Your task to perform on an android device: Open Maps and search for coffee Image 0: 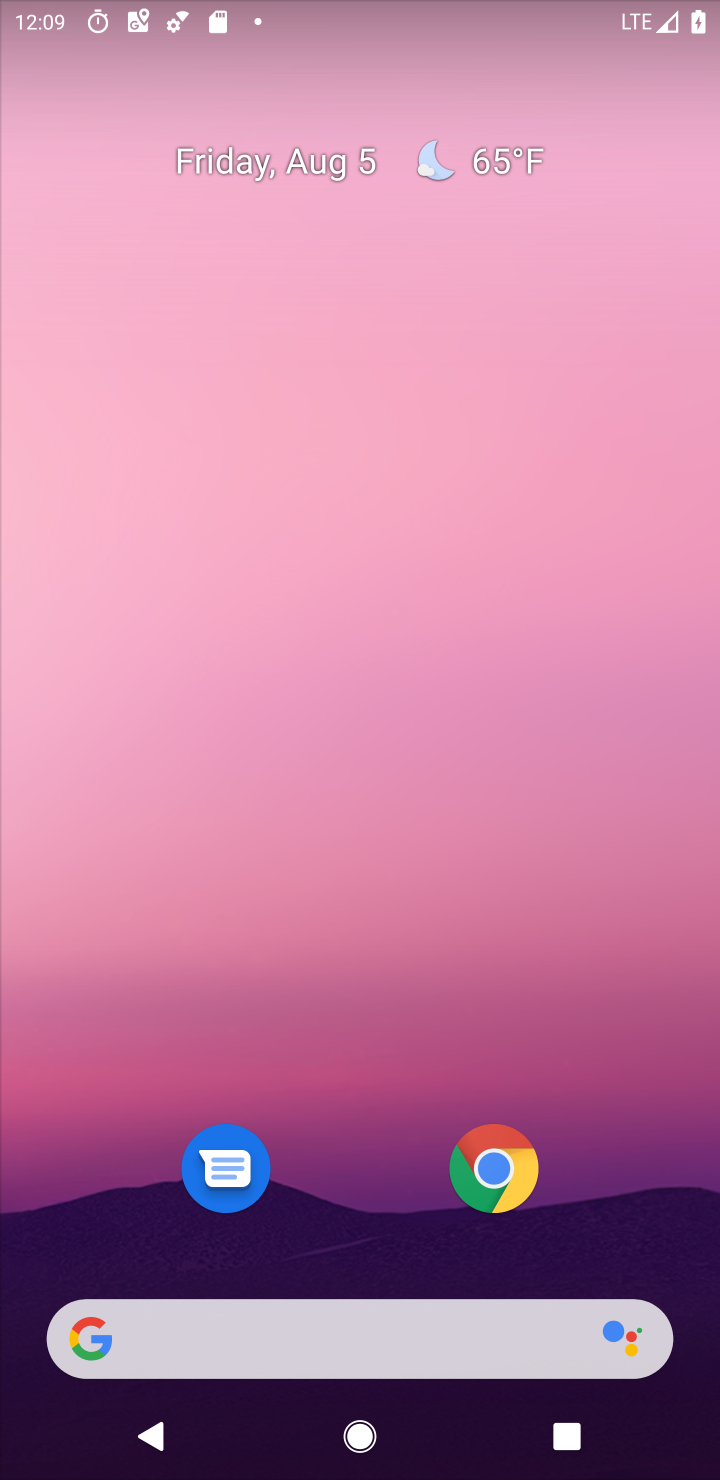
Step 0: drag from (371, 920) to (349, 28)
Your task to perform on an android device: Open Maps and search for coffee Image 1: 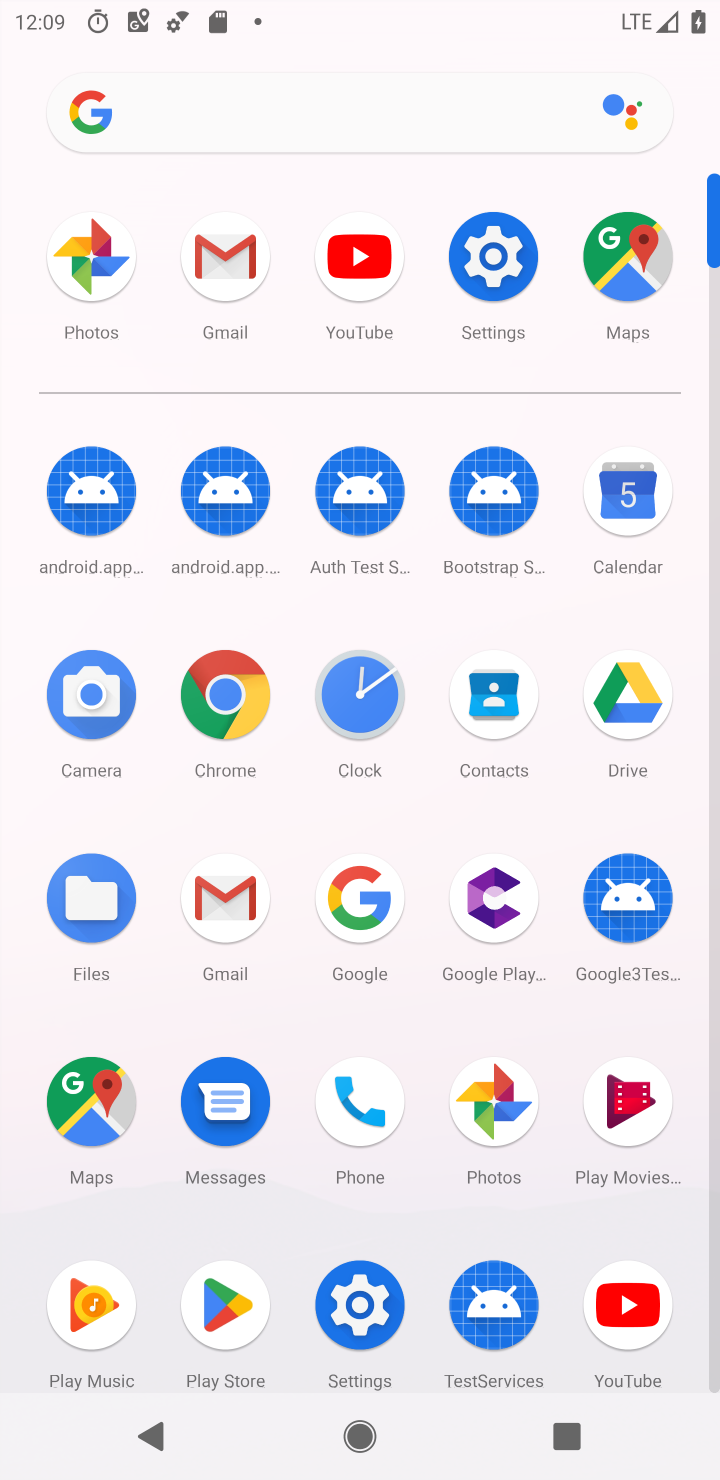
Step 1: click (70, 1122)
Your task to perform on an android device: Open Maps and search for coffee Image 2: 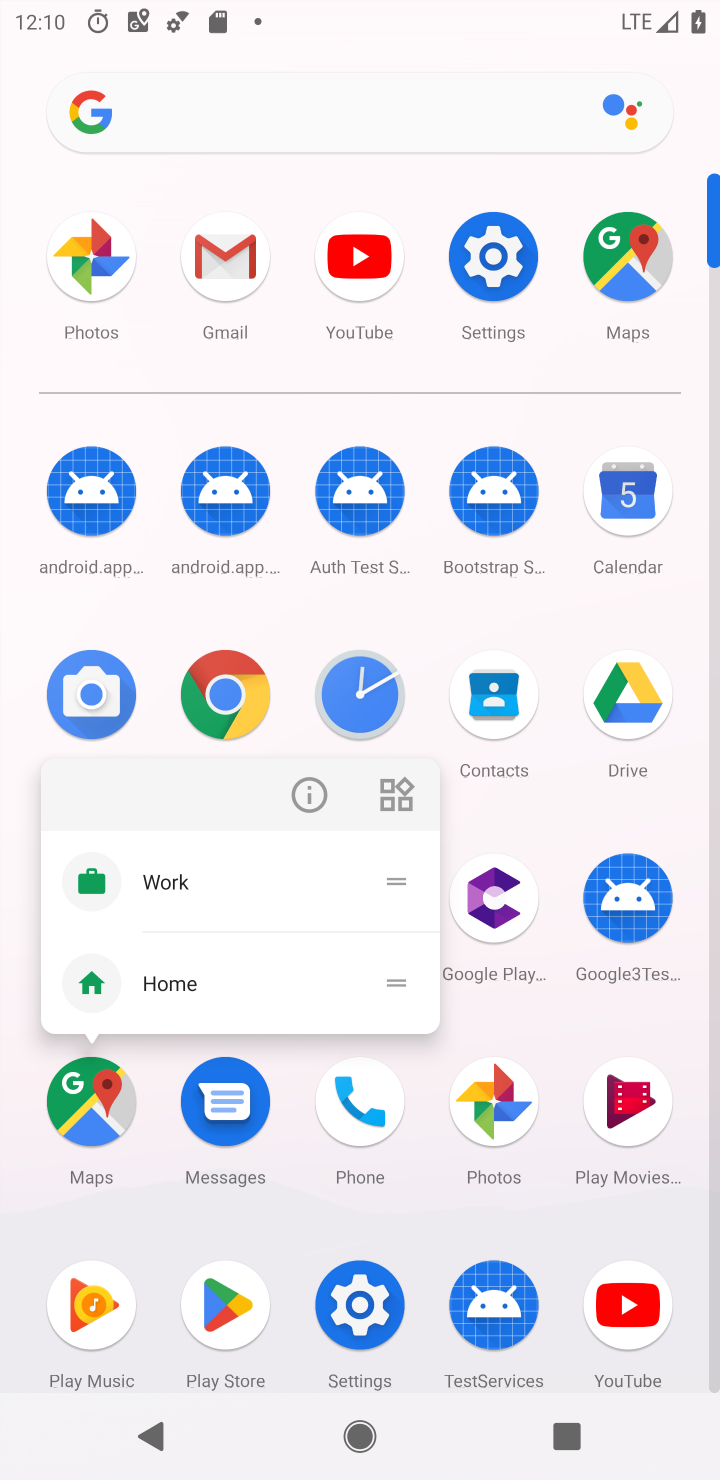
Step 2: click (85, 1106)
Your task to perform on an android device: Open Maps and search for coffee Image 3: 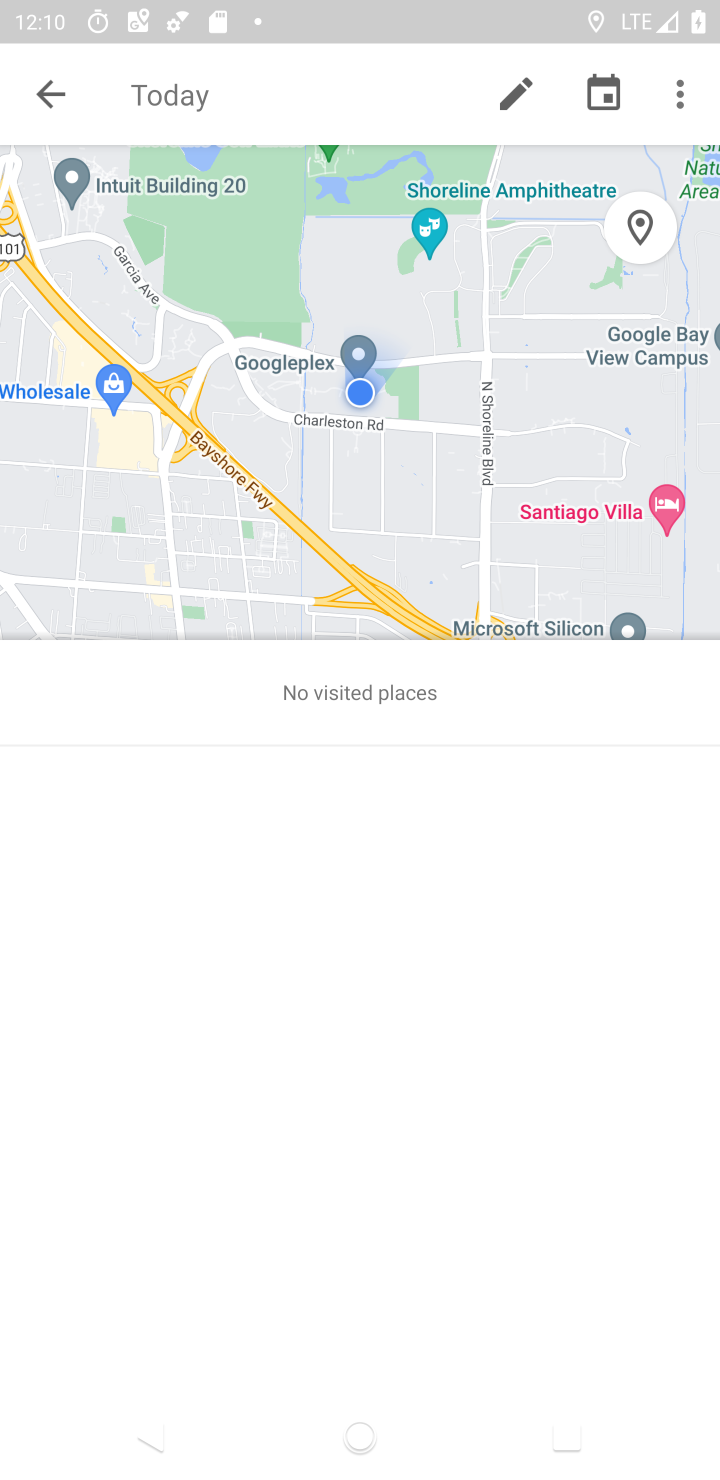
Step 3: click (44, 93)
Your task to perform on an android device: Open Maps and search for coffee Image 4: 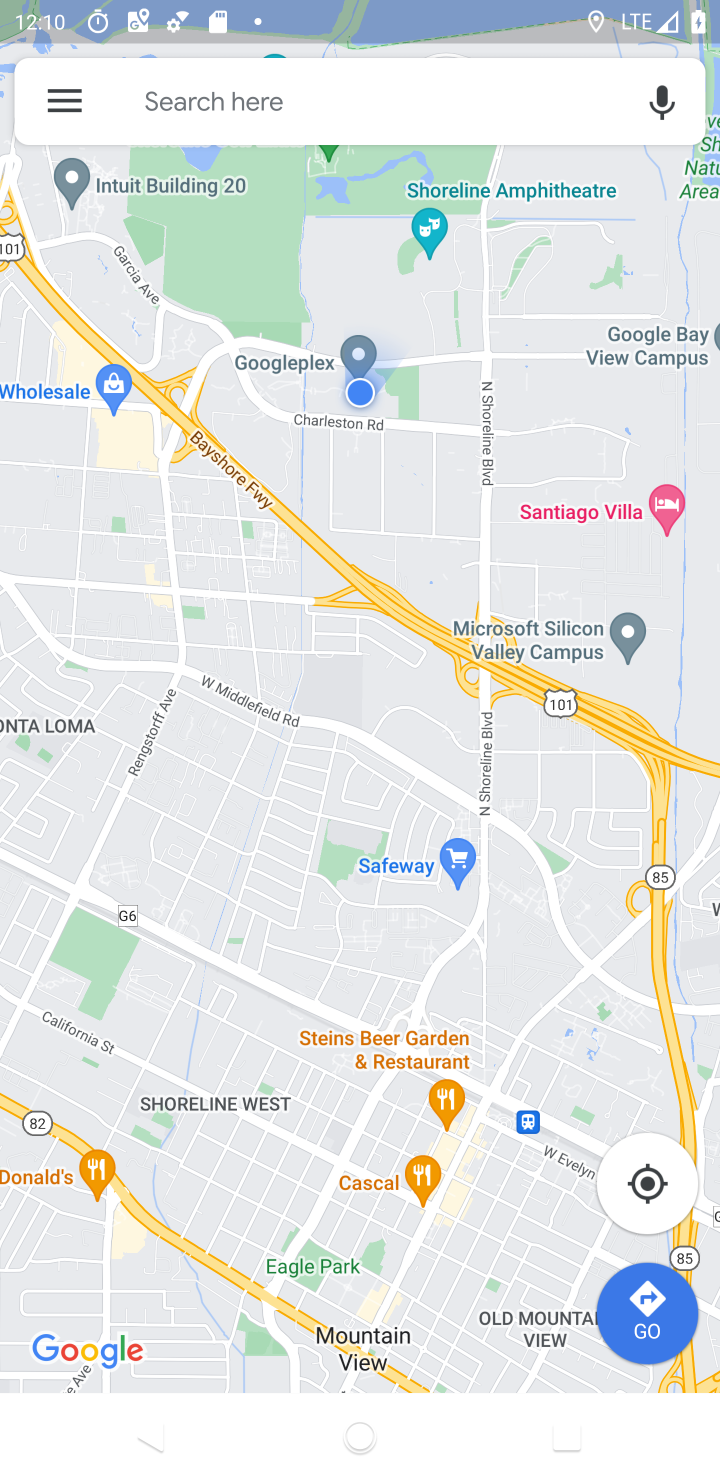
Step 4: click (251, 106)
Your task to perform on an android device: Open Maps and search for coffee Image 5: 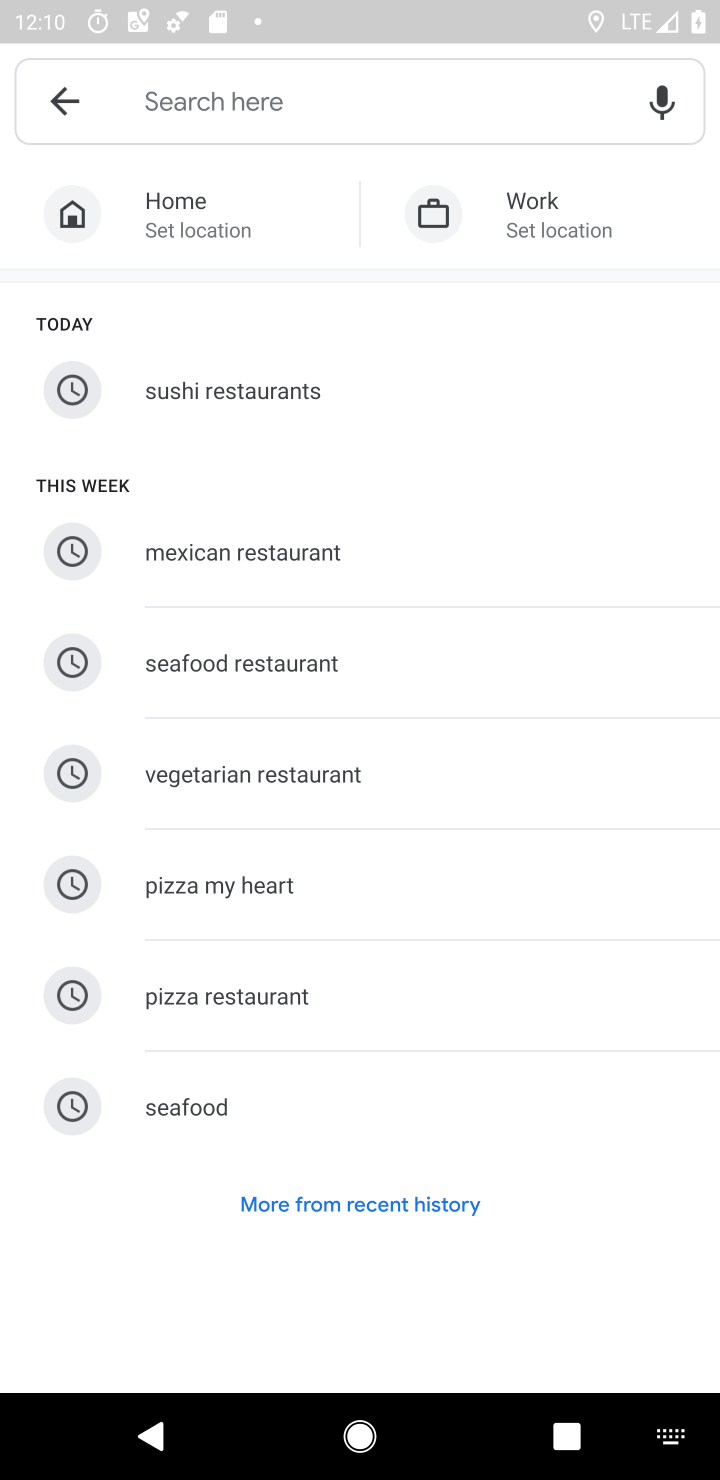
Step 5: type "coffee"
Your task to perform on an android device: Open Maps and search for coffee Image 6: 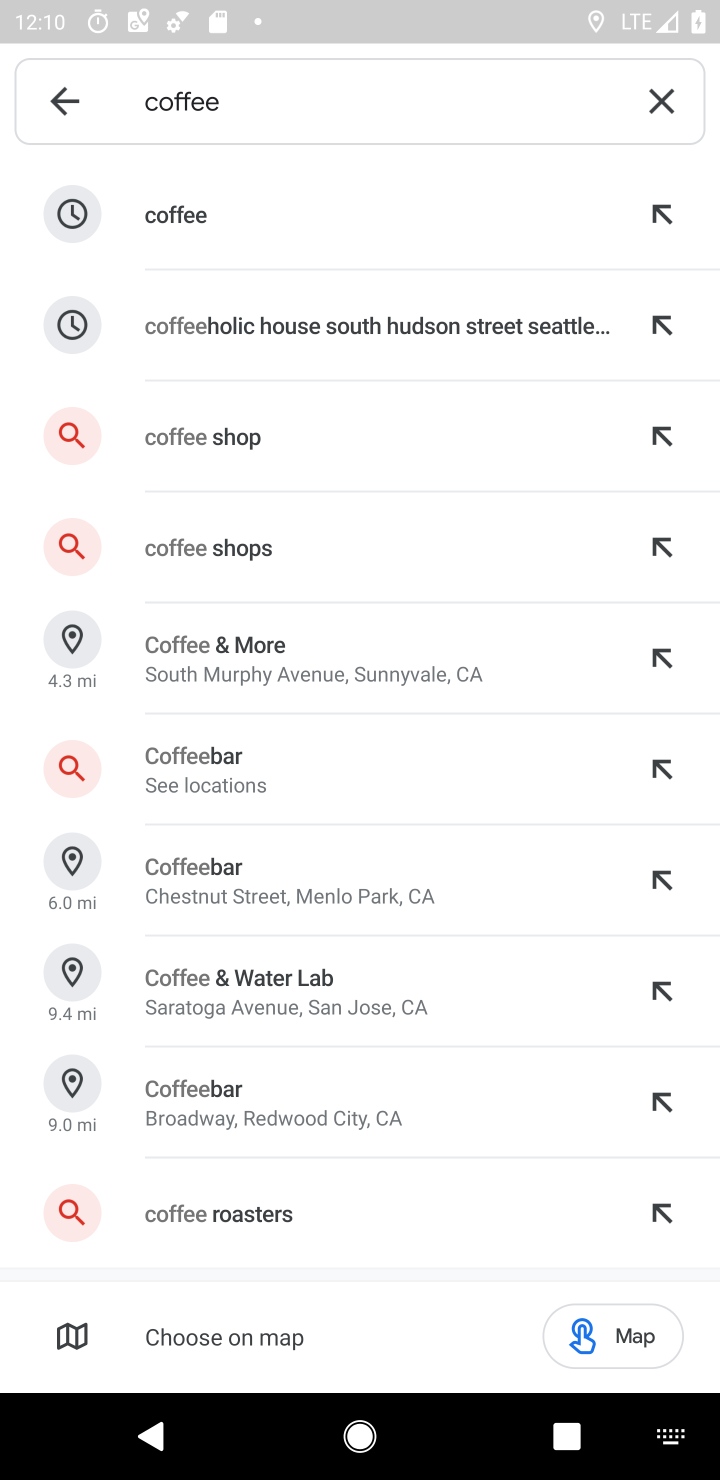
Step 6: click (395, 205)
Your task to perform on an android device: Open Maps and search for coffee Image 7: 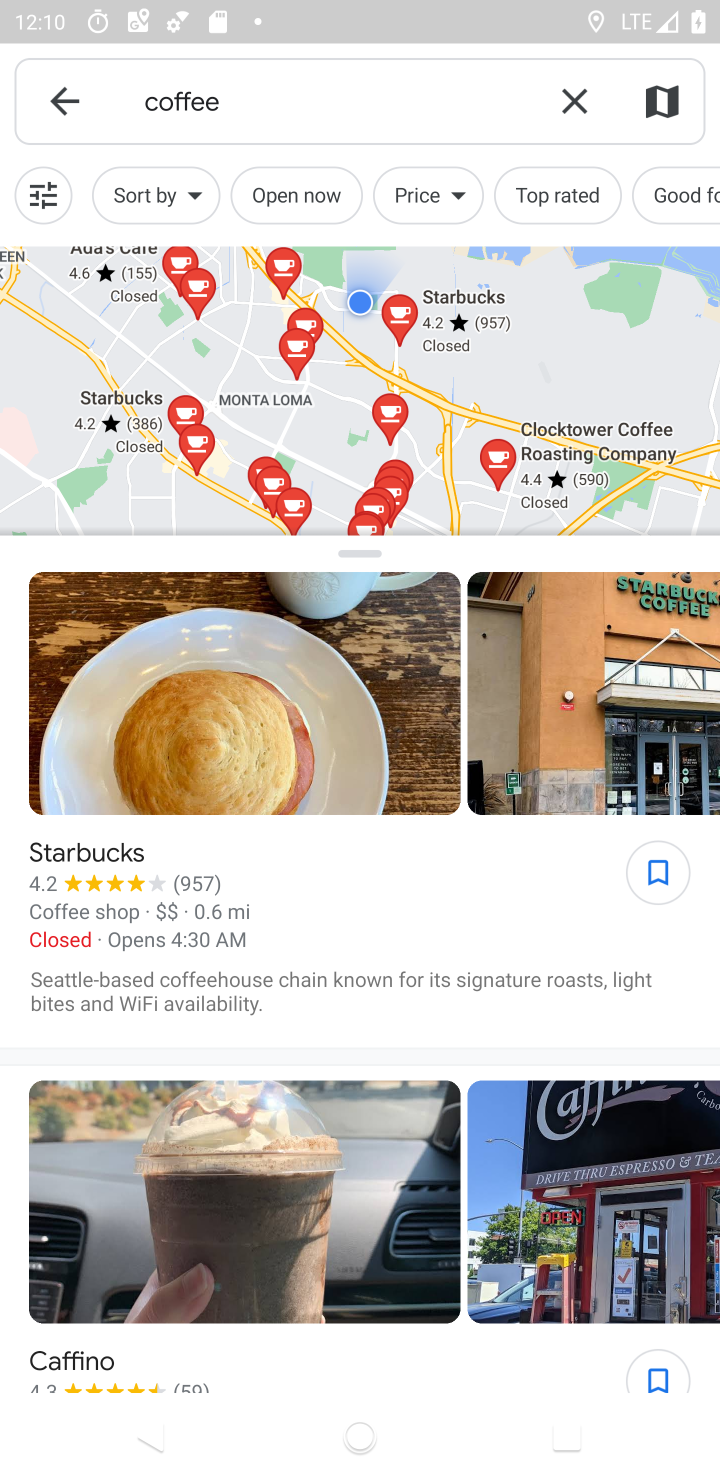
Step 7: task complete